Your task to perform on an android device: allow cookies in the chrome app Image 0: 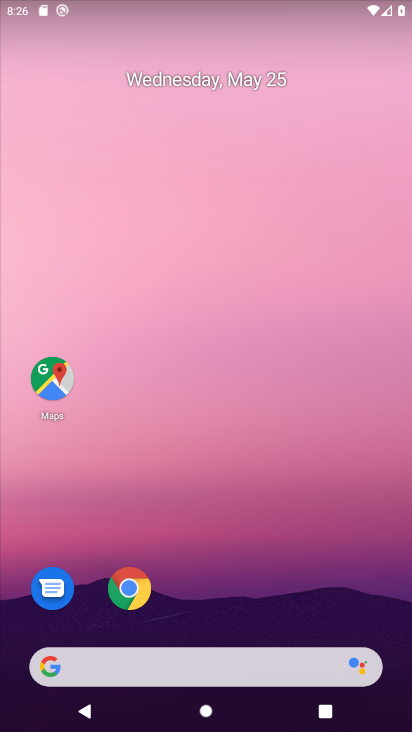
Step 0: drag from (389, 636) to (383, 304)
Your task to perform on an android device: allow cookies in the chrome app Image 1: 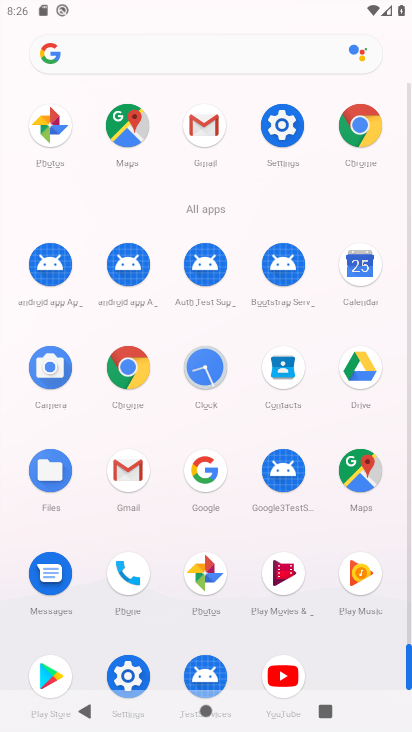
Step 1: click (137, 379)
Your task to perform on an android device: allow cookies in the chrome app Image 2: 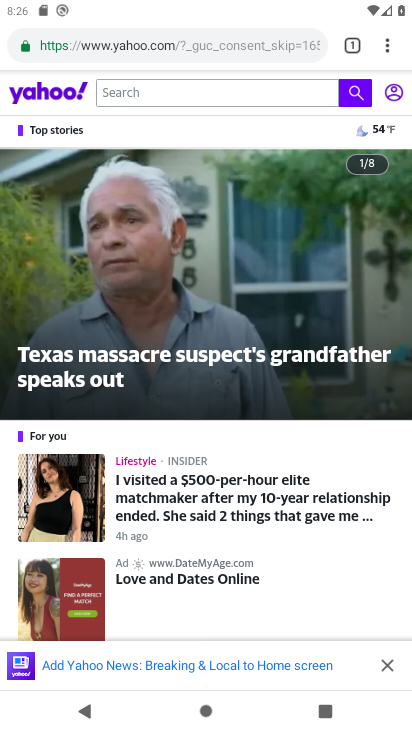
Step 2: click (388, 50)
Your task to perform on an android device: allow cookies in the chrome app Image 3: 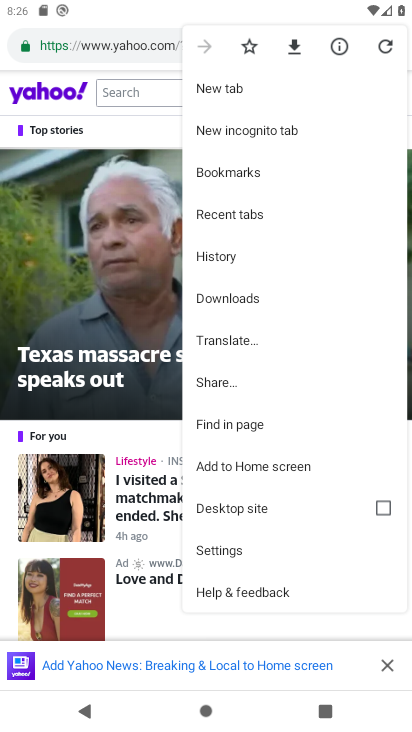
Step 3: click (238, 554)
Your task to perform on an android device: allow cookies in the chrome app Image 4: 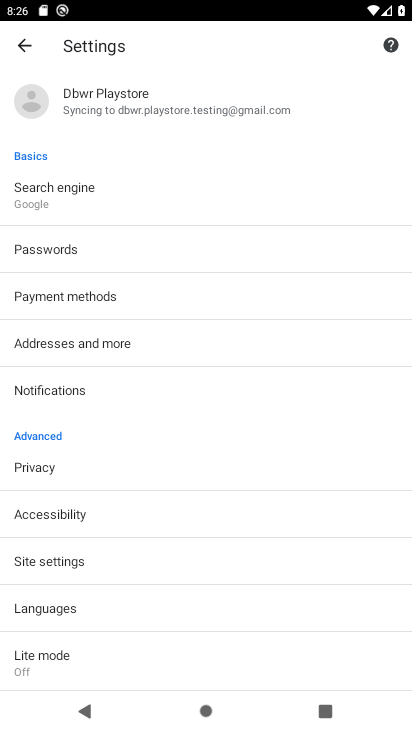
Step 4: drag from (245, 523) to (264, 423)
Your task to perform on an android device: allow cookies in the chrome app Image 5: 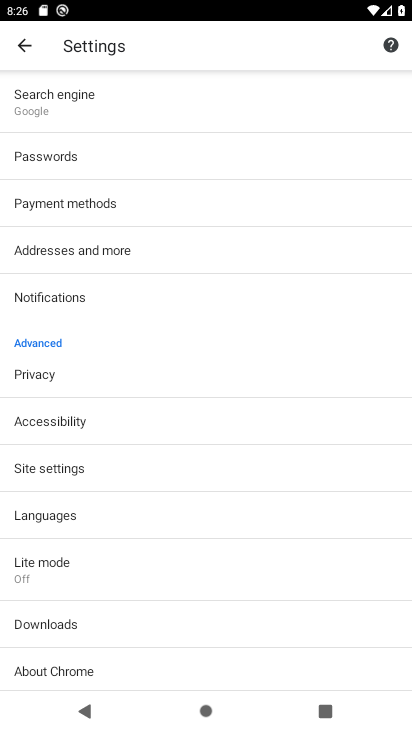
Step 5: click (168, 470)
Your task to perform on an android device: allow cookies in the chrome app Image 6: 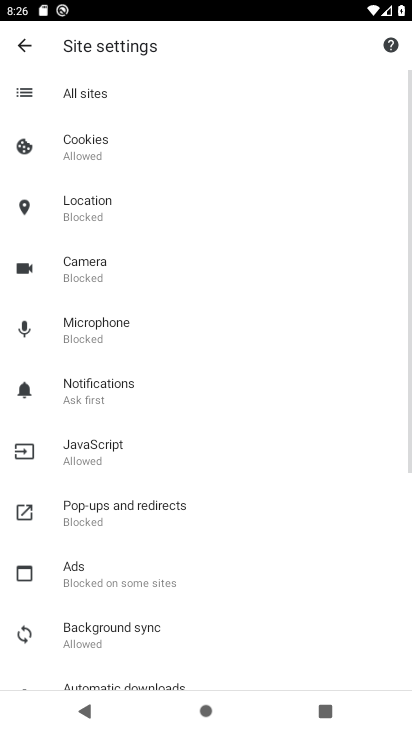
Step 6: drag from (258, 581) to (271, 496)
Your task to perform on an android device: allow cookies in the chrome app Image 7: 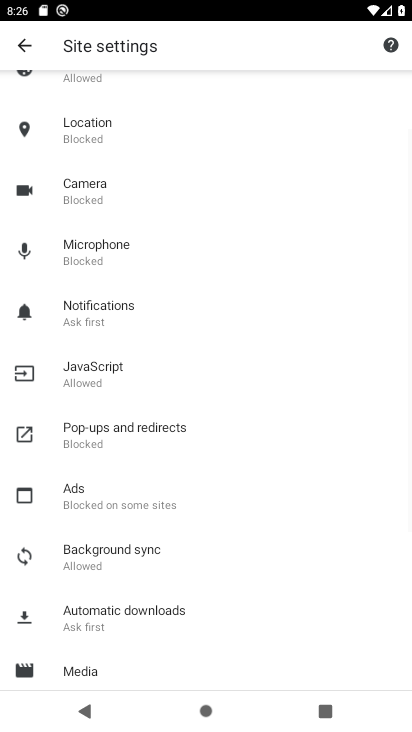
Step 7: drag from (270, 618) to (290, 527)
Your task to perform on an android device: allow cookies in the chrome app Image 8: 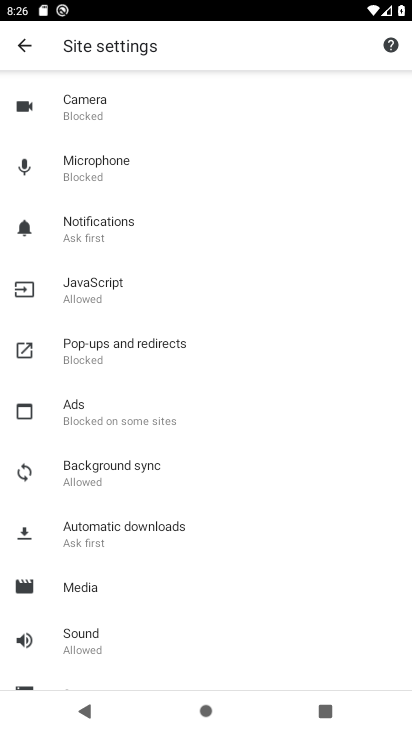
Step 8: drag from (296, 606) to (307, 524)
Your task to perform on an android device: allow cookies in the chrome app Image 9: 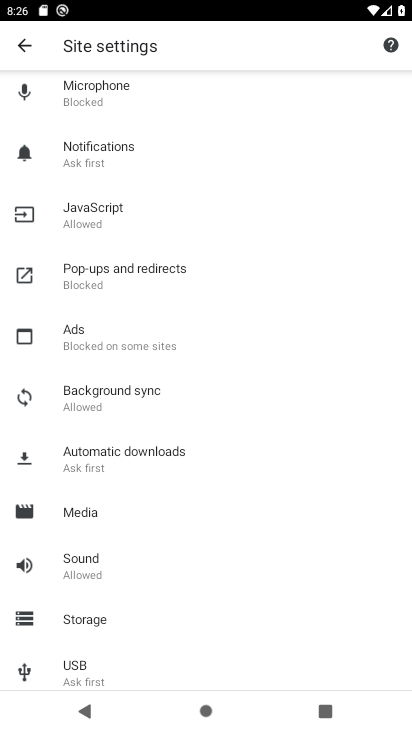
Step 9: drag from (296, 631) to (303, 506)
Your task to perform on an android device: allow cookies in the chrome app Image 10: 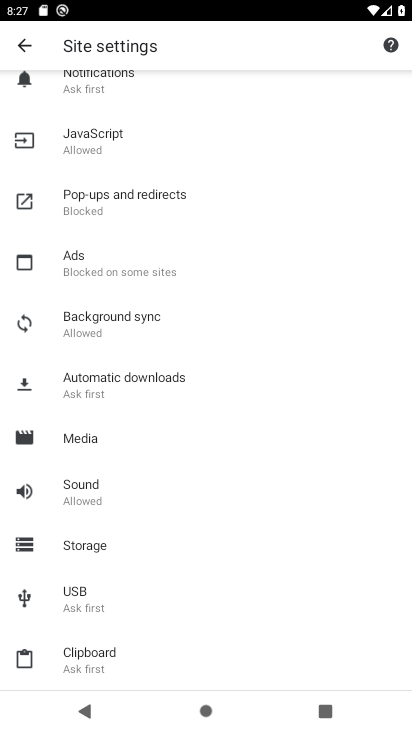
Step 10: drag from (290, 401) to (298, 531)
Your task to perform on an android device: allow cookies in the chrome app Image 11: 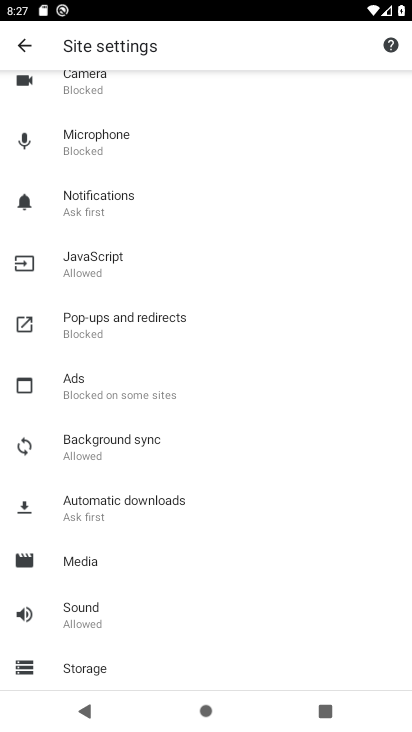
Step 11: drag from (308, 341) to (308, 447)
Your task to perform on an android device: allow cookies in the chrome app Image 12: 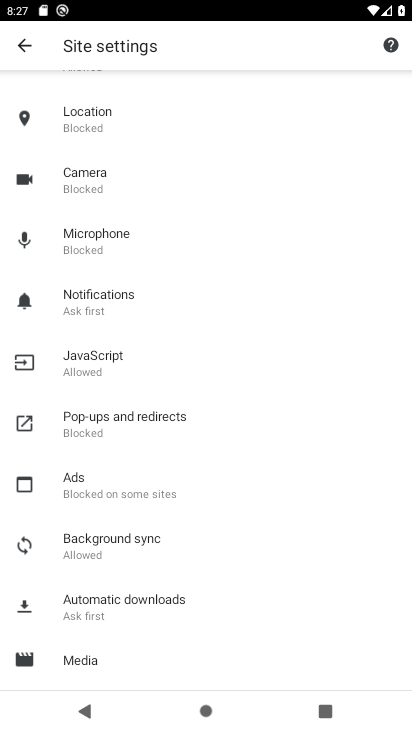
Step 12: drag from (291, 326) to (278, 511)
Your task to perform on an android device: allow cookies in the chrome app Image 13: 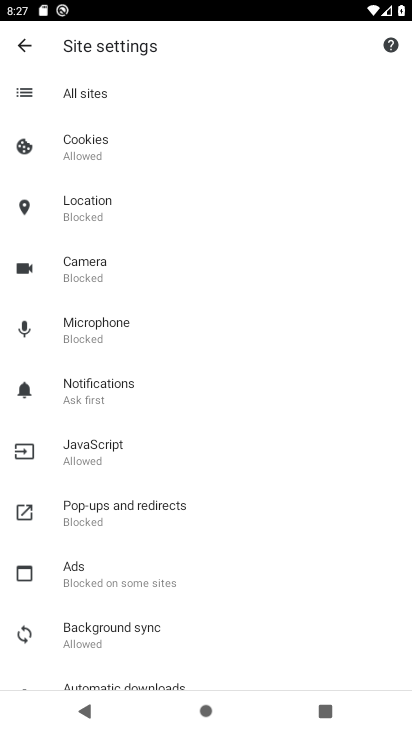
Step 13: click (85, 137)
Your task to perform on an android device: allow cookies in the chrome app Image 14: 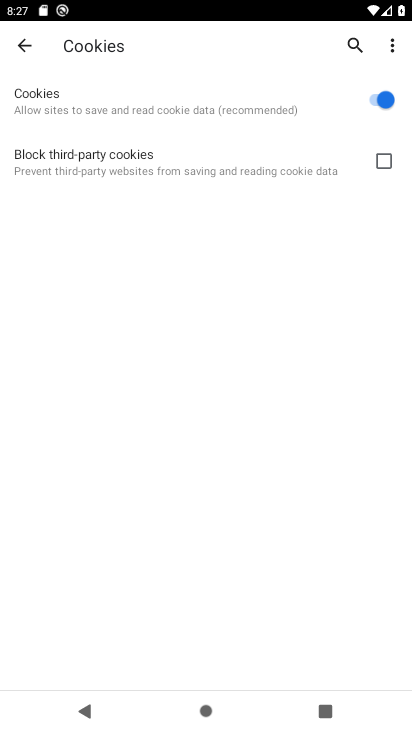
Step 14: task complete